Your task to perform on an android device: toggle show notifications on the lock screen Image 0: 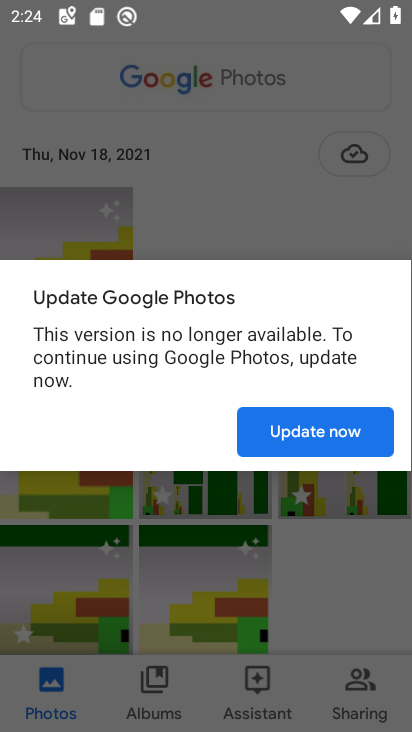
Step 0: click (346, 625)
Your task to perform on an android device: toggle show notifications on the lock screen Image 1: 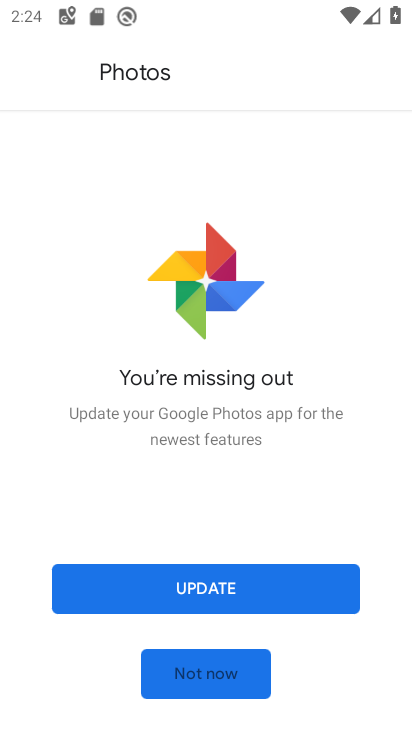
Step 1: press home button
Your task to perform on an android device: toggle show notifications on the lock screen Image 2: 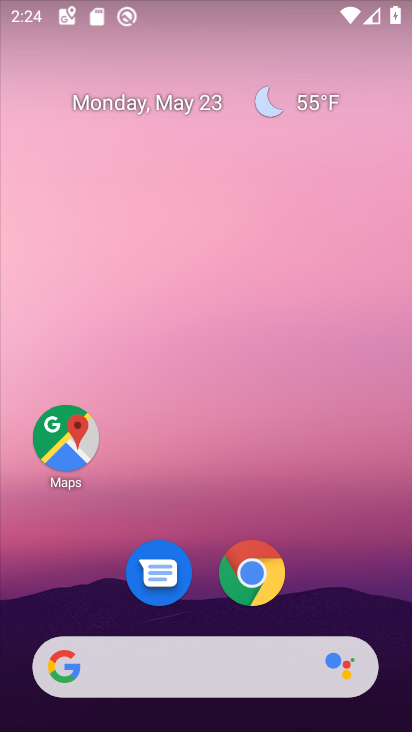
Step 2: drag from (330, 586) to (315, 12)
Your task to perform on an android device: toggle show notifications on the lock screen Image 3: 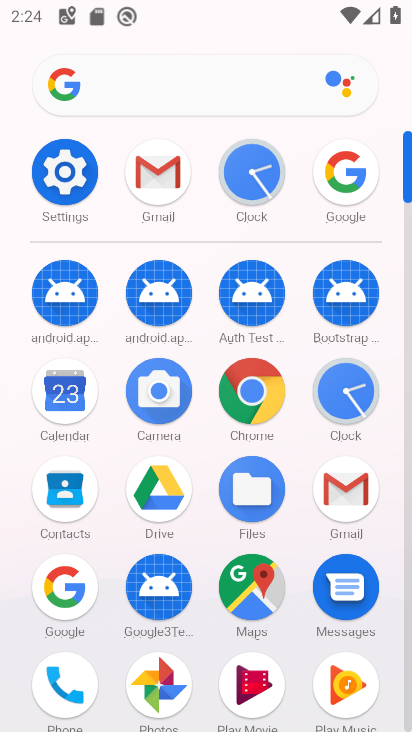
Step 3: click (67, 157)
Your task to perform on an android device: toggle show notifications on the lock screen Image 4: 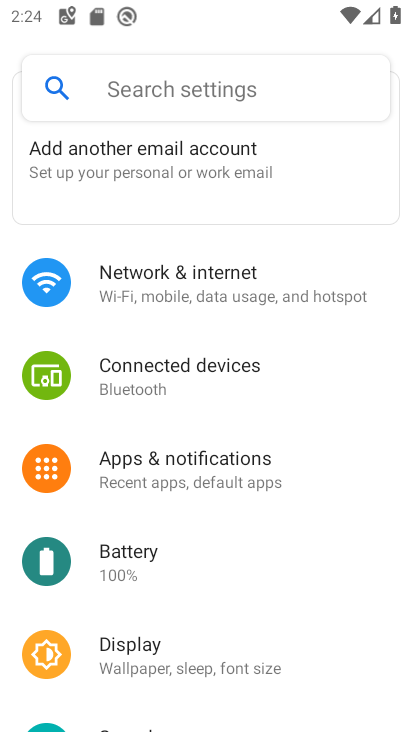
Step 4: click (208, 482)
Your task to perform on an android device: toggle show notifications on the lock screen Image 5: 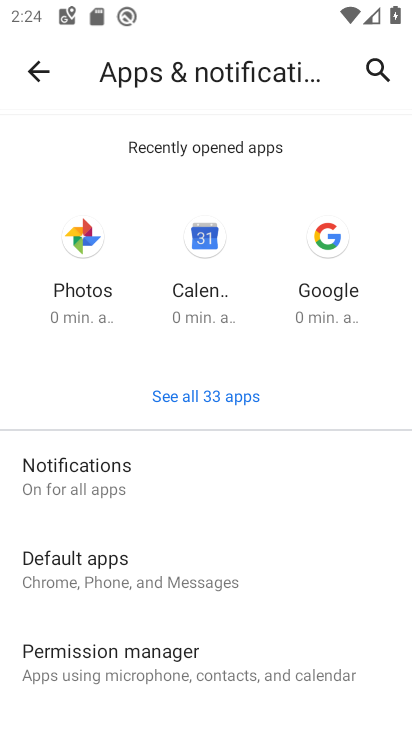
Step 5: click (131, 489)
Your task to perform on an android device: toggle show notifications on the lock screen Image 6: 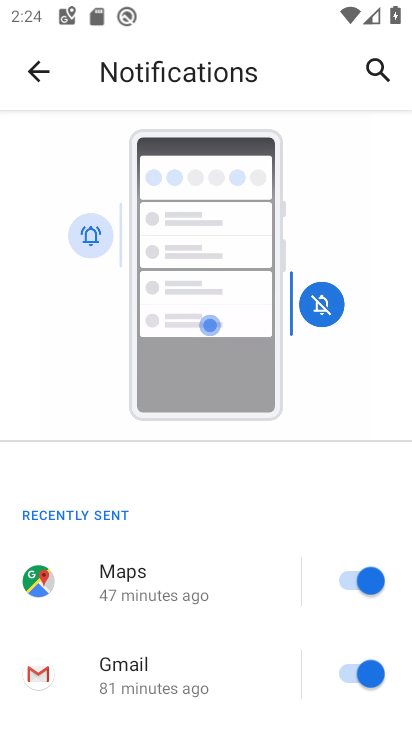
Step 6: drag from (270, 555) to (286, 85)
Your task to perform on an android device: toggle show notifications on the lock screen Image 7: 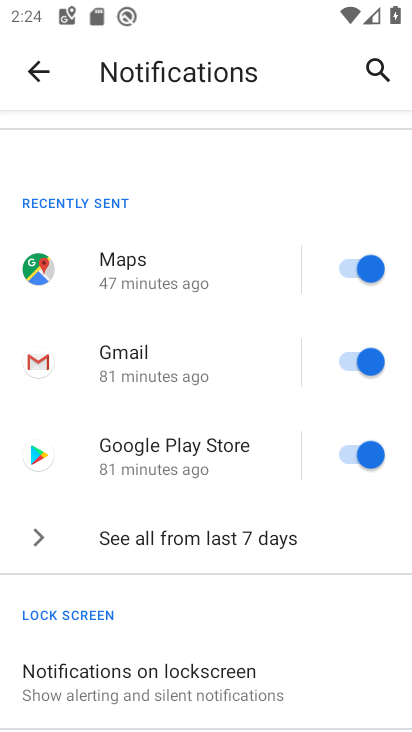
Step 7: click (233, 675)
Your task to perform on an android device: toggle show notifications on the lock screen Image 8: 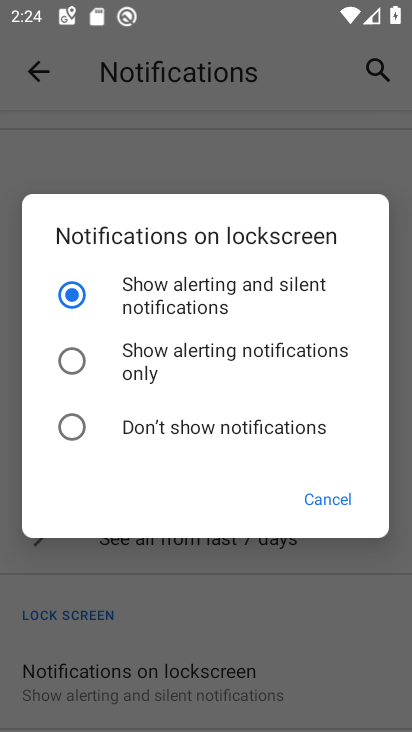
Step 8: click (73, 358)
Your task to perform on an android device: toggle show notifications on the lock screen Image 9: 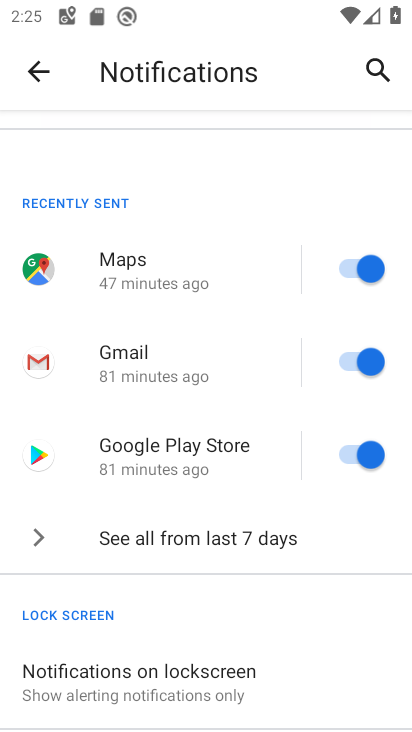
Step 9: task complete